Your task to perform on an android device: add a label to a message in the gmail app Image 0: 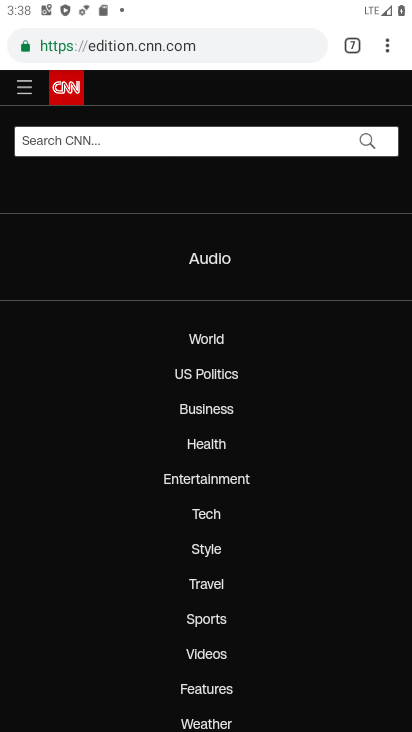
Step 0: press home button
Your task to perform on an android device: add a label to a message in the gmail app Image 1: 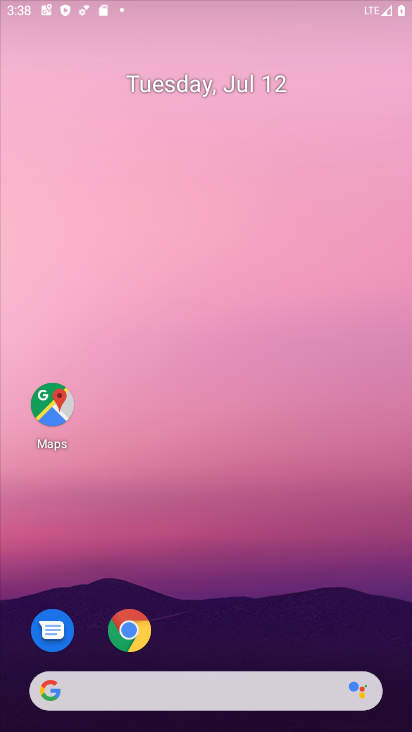
Step 1: drag from (281, 657) to (330, 20)
Your task to perform on an android device: add a label to a message in the gmail app Image 2: 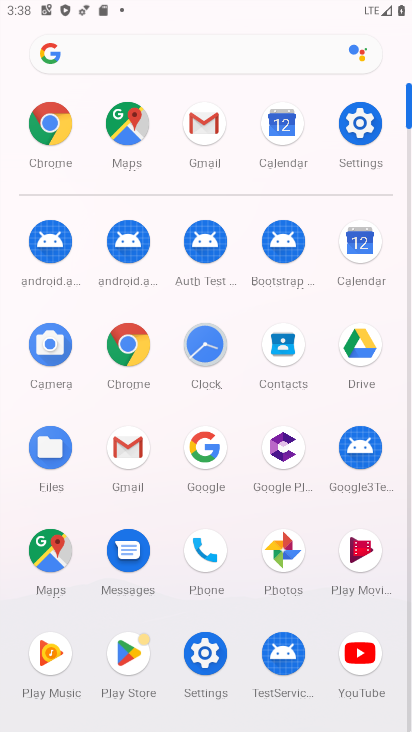
Step 2: click (118, 348)
Your task to perform on an android device: add a label to a message in the gmail app Image 3: 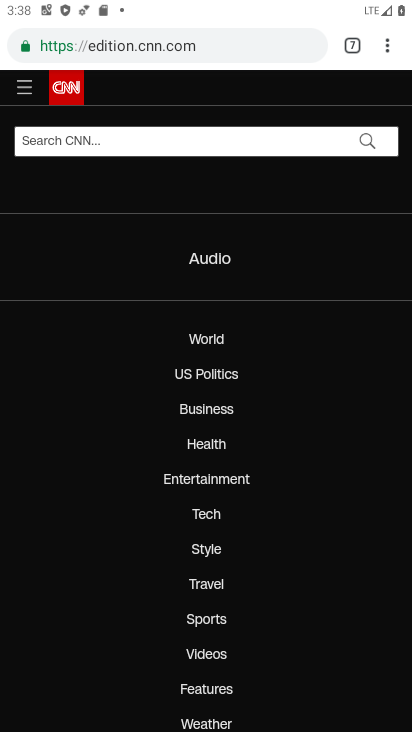
Step 3: press home button
Your task to perform on an android device: add a label to a message in the gmail app Image 4: 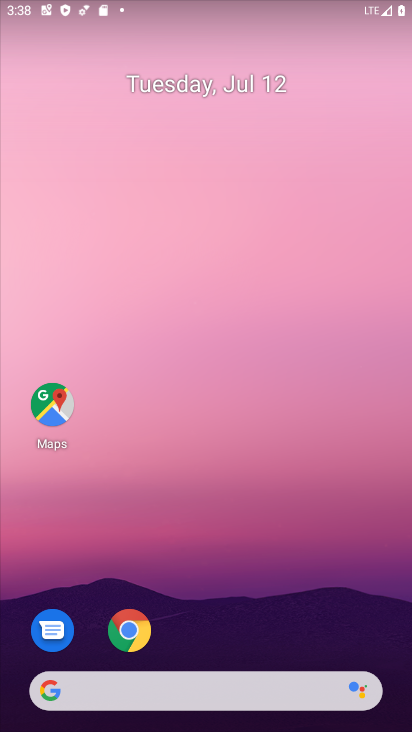
Step 4: drag from (297, 680) to (279, 1)
Your task to perform on an android device: add a label to a message in the gmail app Image 5: 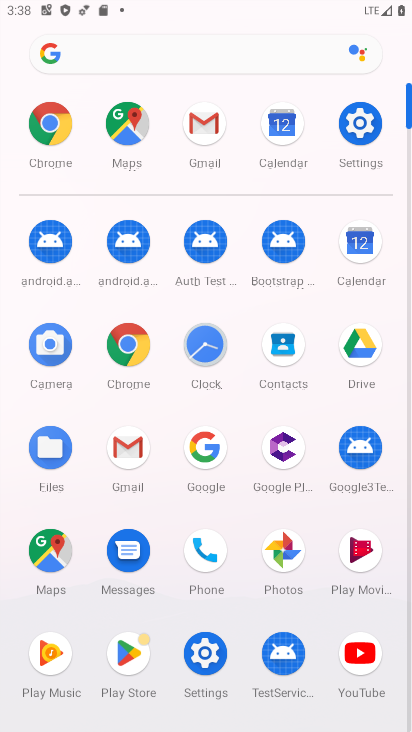
Step 5: click (129, 439)
Your task to perform on an android device: add a label to a message in the gmail app Image 6: 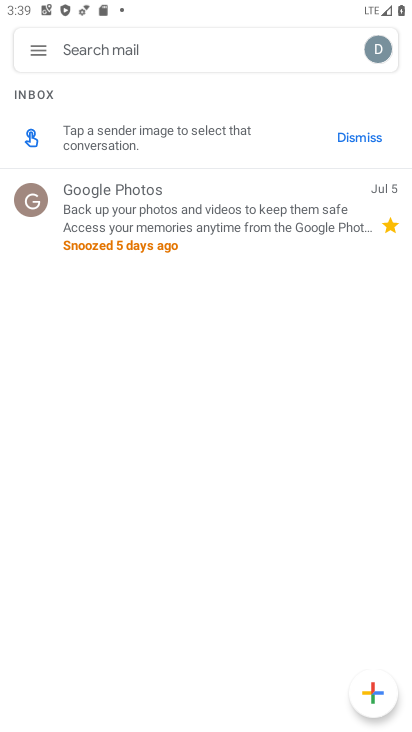
Step 6: click (266, 211)
Your task to perform on an android device: add a label to a message in the gmail app Image 7: 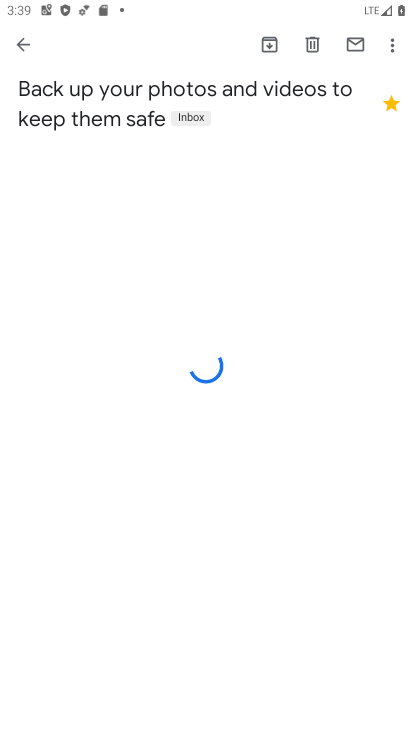
Step 7: click (387, 44)
Your task to perform on an android device: add a label to a message in the gmail app Image 8: 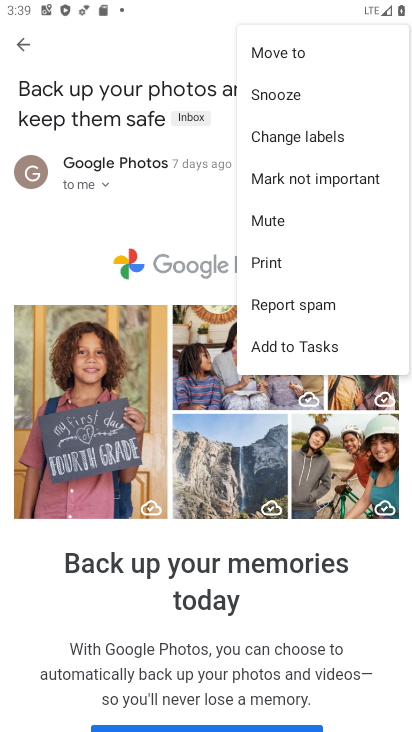
Step 8: click (296, 137)
Your task to perform on an android device: add a label to a message in the gmail app Image 9: 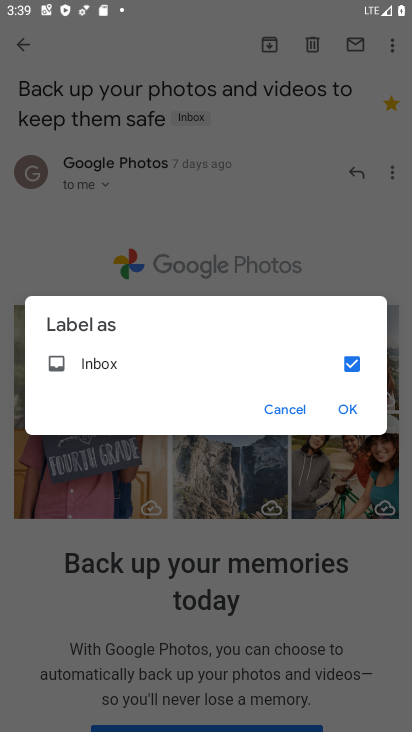
Step 9: click (343, 412)
Your task to perform on an android device: add a label to a message in the gmail app Image 10: 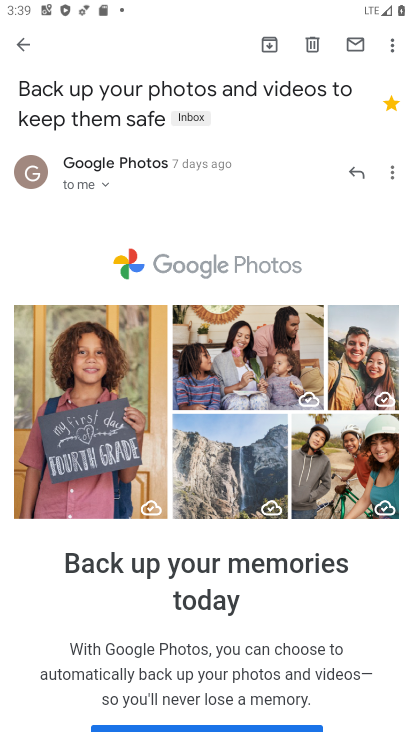
Step 10: task complete